Your task to perform on an android device: open app "YouTube Kids" Image 0: 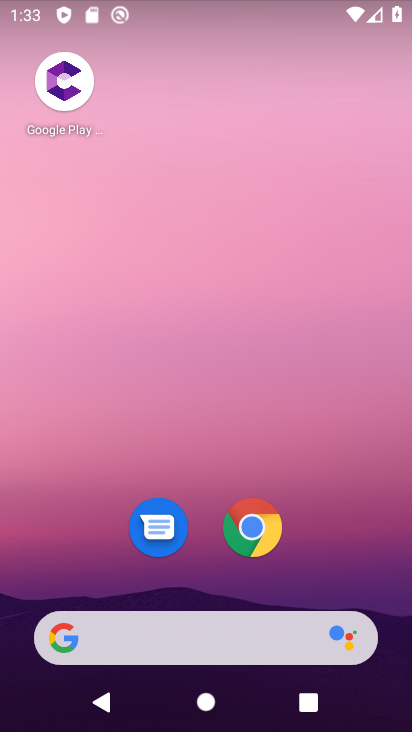
Step 0: drag from (234, 637) to (165, 25)
Your task to perform on an android device: open app "YouTube Kids" Image 1: 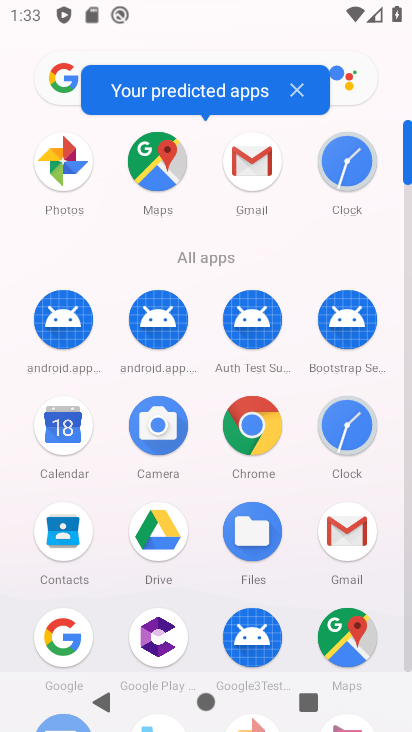
Step 1: drag from (168, 617) to (121, 92)
Your task to perform on an android device: open app "YouTube Kids" Image 2: 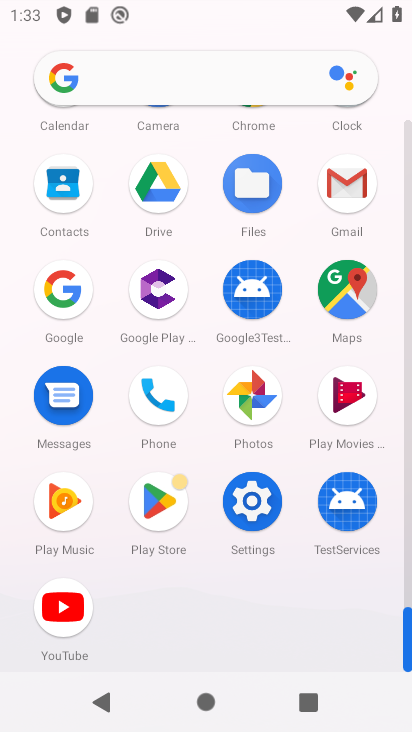
Step 2: click (165, 506)
Your task to perform on an android device: open app "YouTube Kids" Image 3: 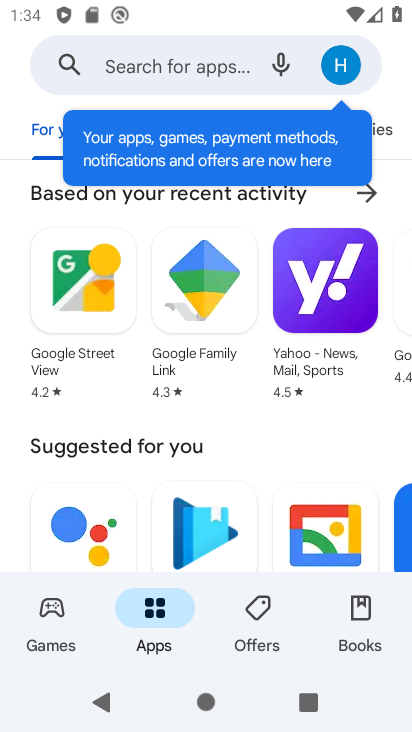
Step 3: click (203, 60)
Your task to perform on an android device: open app "YouTube Kids" Image 4: 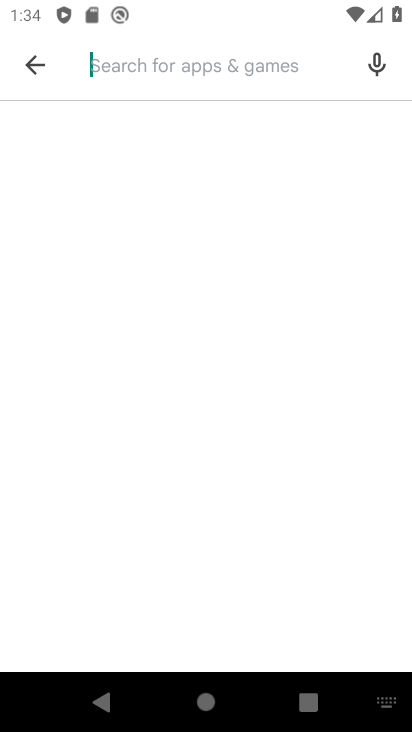
Step 4: type "youtubekids"
Your task to perform on an android device: open app "YouTube Kids" Image 5: 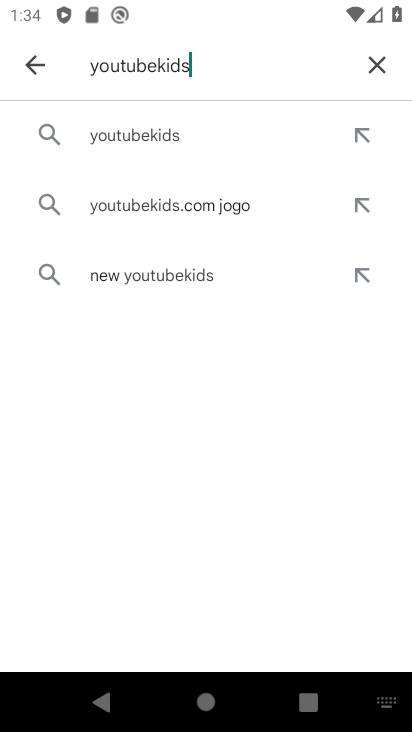
Step 5: click (138, 139)
Your task to perform on an android device: open app "YouTube Kids" Image 6: 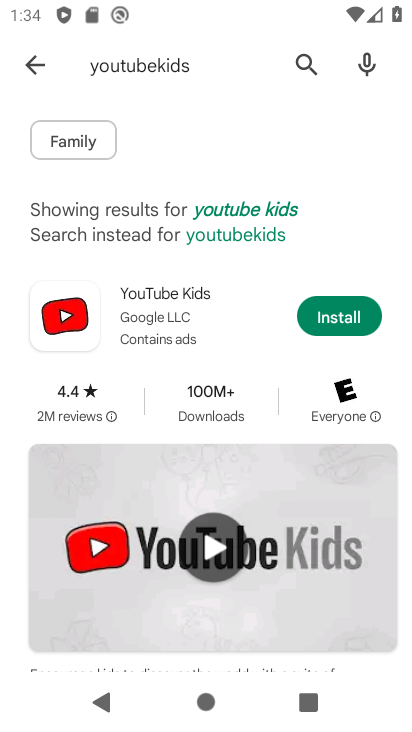
Step 6: task complete